Your task to perform on an android device: Search for the best 4k TVs Image 0: 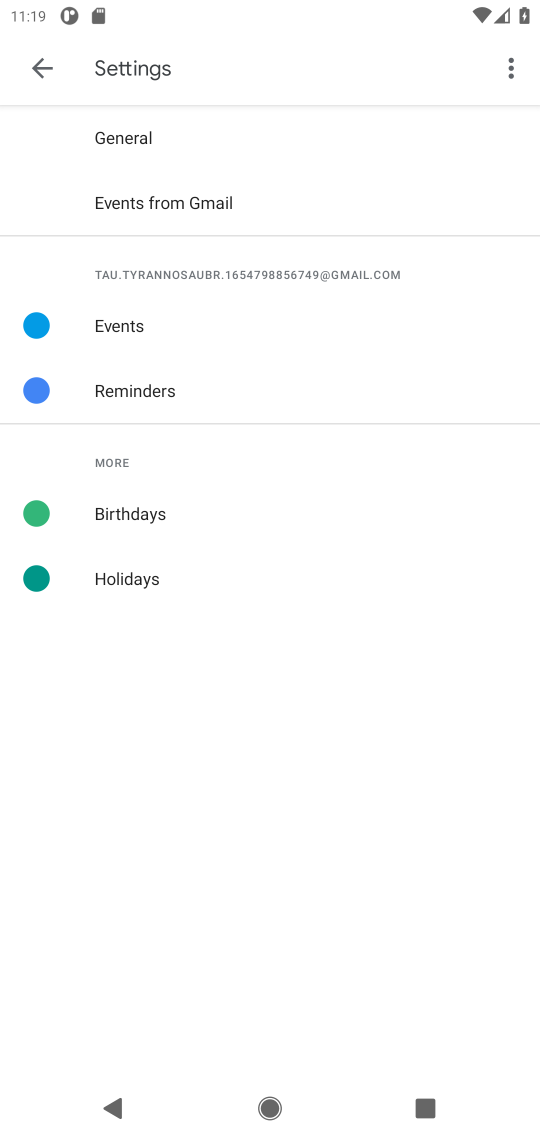
Step 0: press home button
Your task to perform on an android device: Search for the best 4k TVs Image 1: 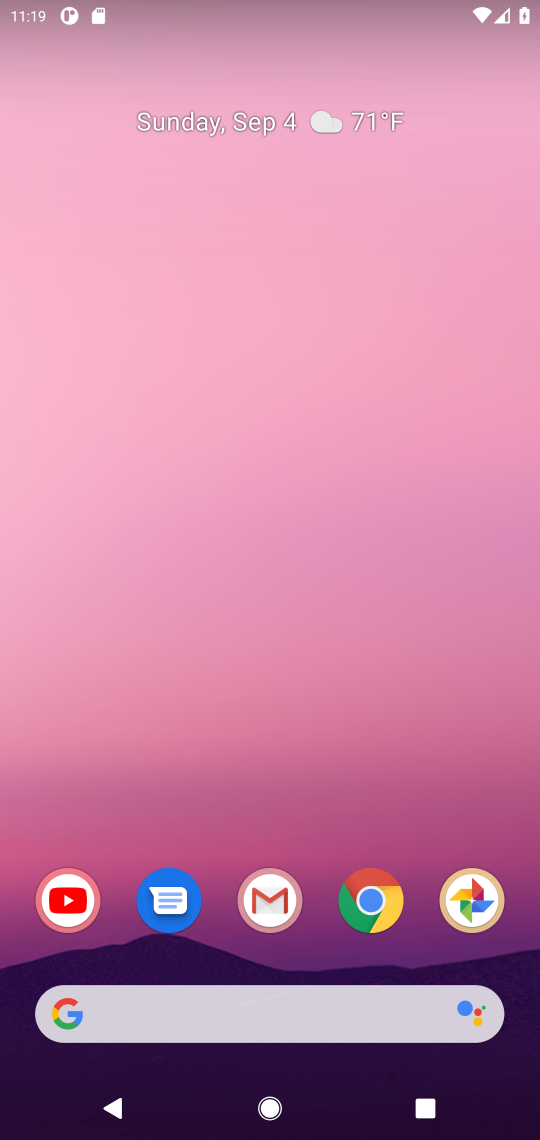
Step 1: click (378, 908)
Your task to perform on an android device: Search for the best 4k TVs Image 2: 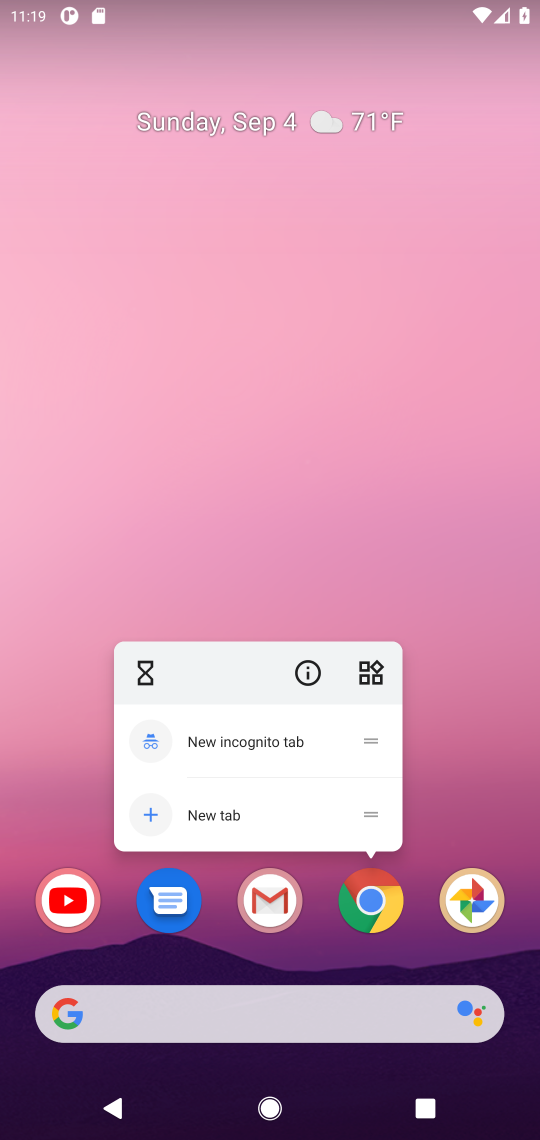
Step 2: click (378, 909)
Your task to perform on an android device: Search for the best 4k TVs Image 3: 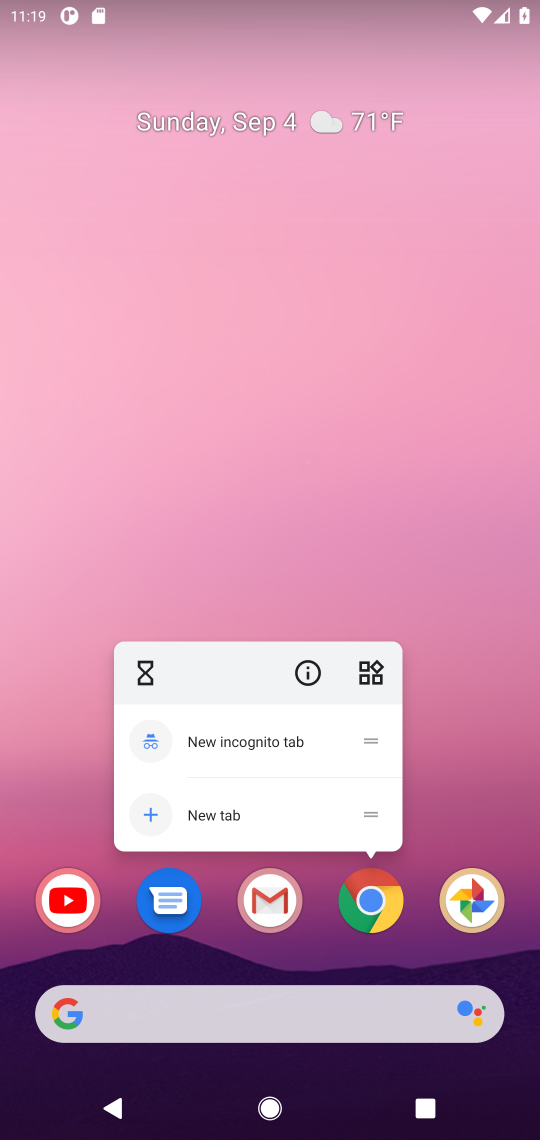
Step 3: click (375, 908)
Your task to perform on an android device: Search for the best 4k TVs Image 4: 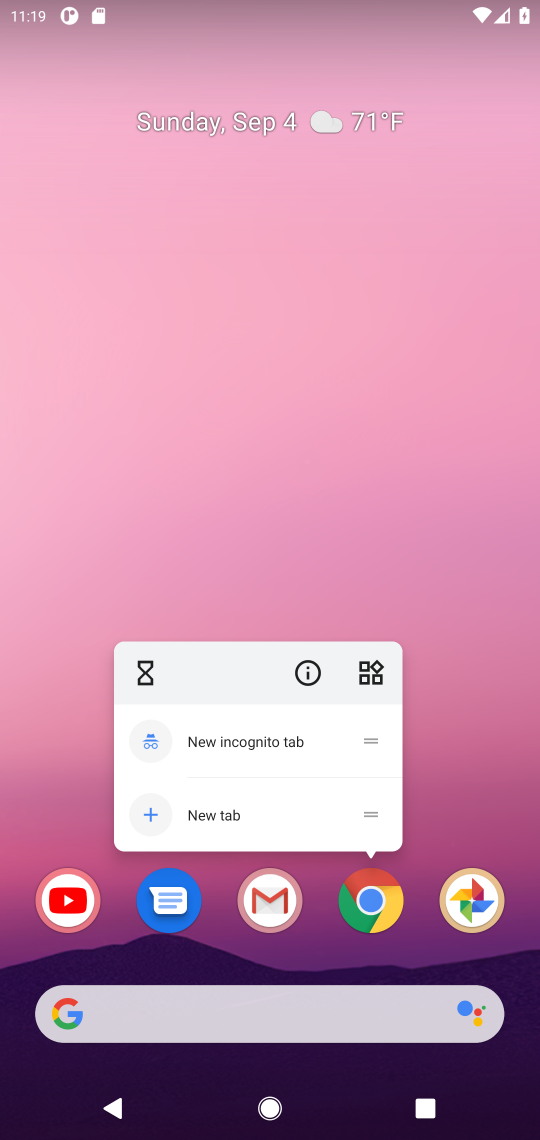
Step 4: click (375, 908)
Your task to perform on an android device: Search for the best 4k TVs Image 5: 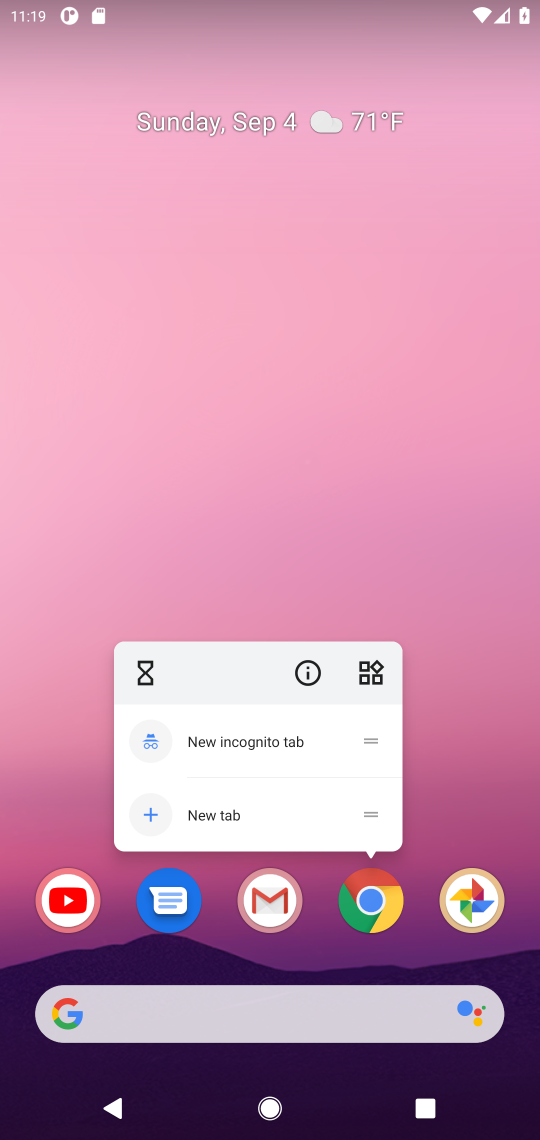
Step 5: click (375, 908)
Your task to perform on an android device: Search for the best 4k TVs Image 6: 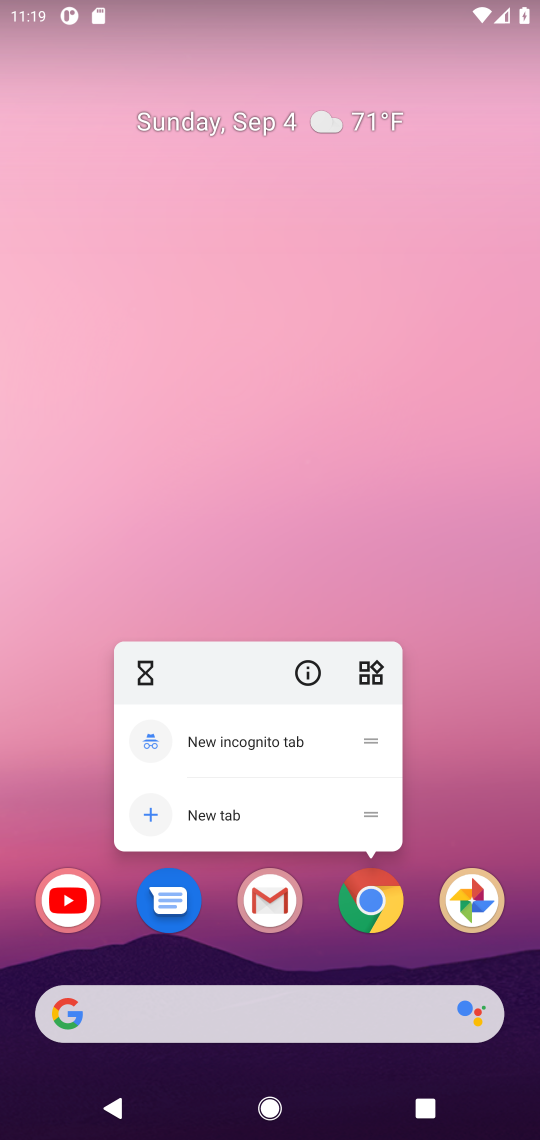
Step 6: click (374, 894)
Your task to perform on an android device: Search for the best 4k TVs Image 7: 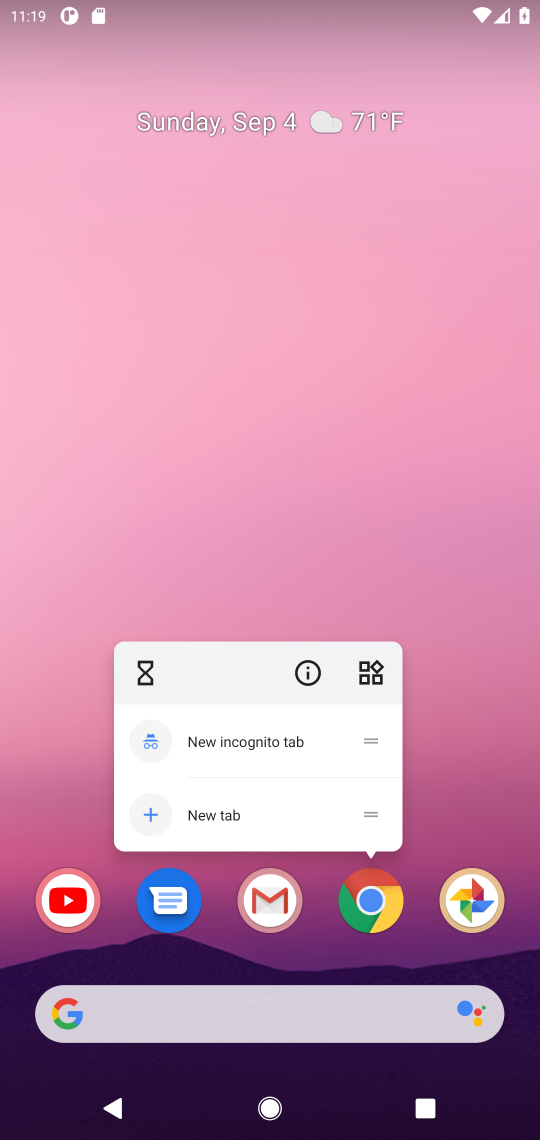
Step 7: click (366, 904)
Your task to perform on an android device: Search for the best 4k TVs Image 8: 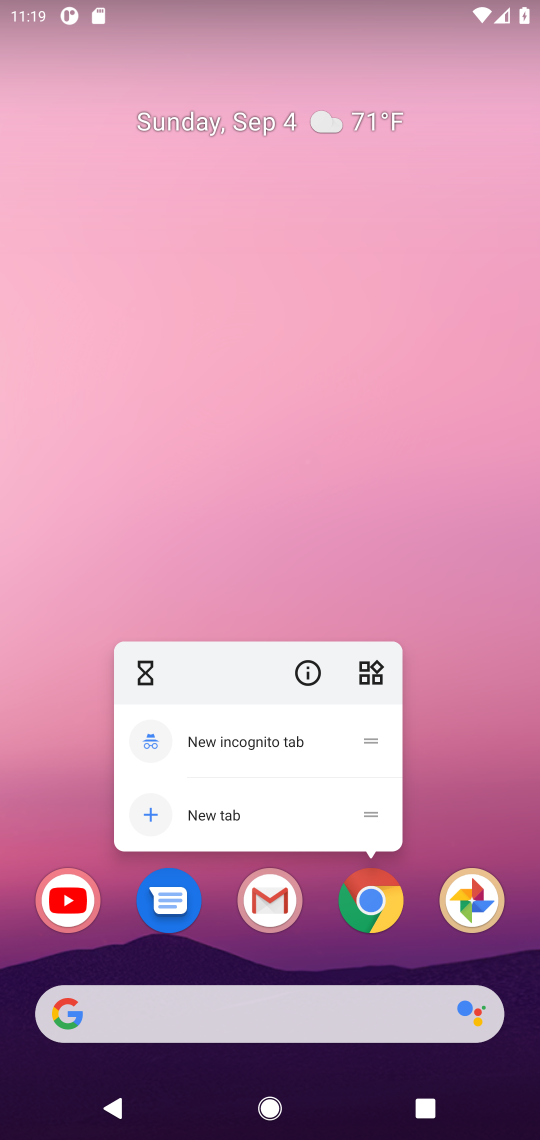
Step 8: click (372, 925)
Your task to perform on an android device: Search for the best 4k TVs Image 9: 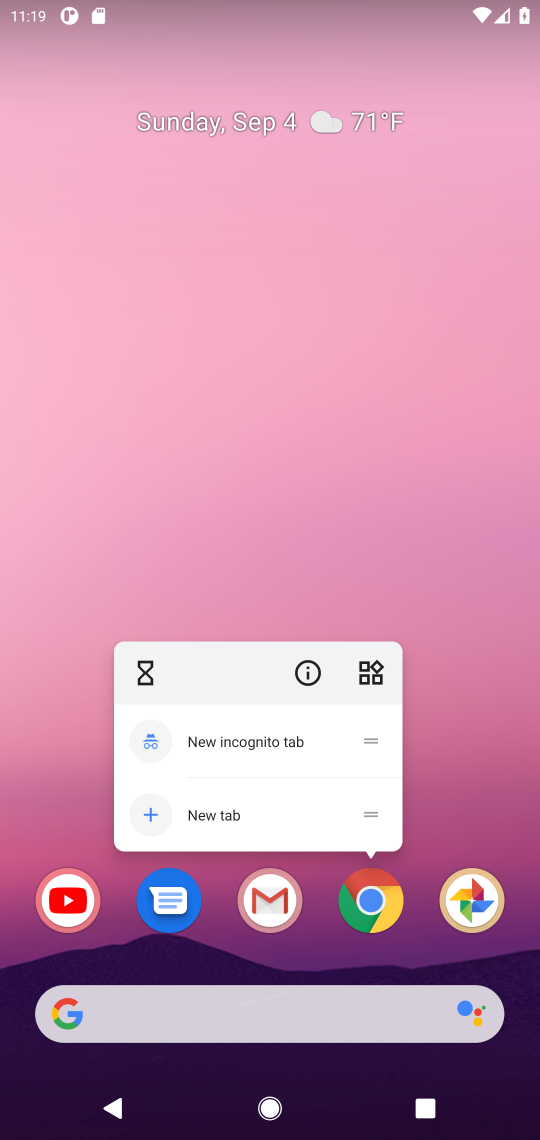
Step 9: click (458, 427)
Your task to perform on an android device: Search for the best 4k TVs Image 10: 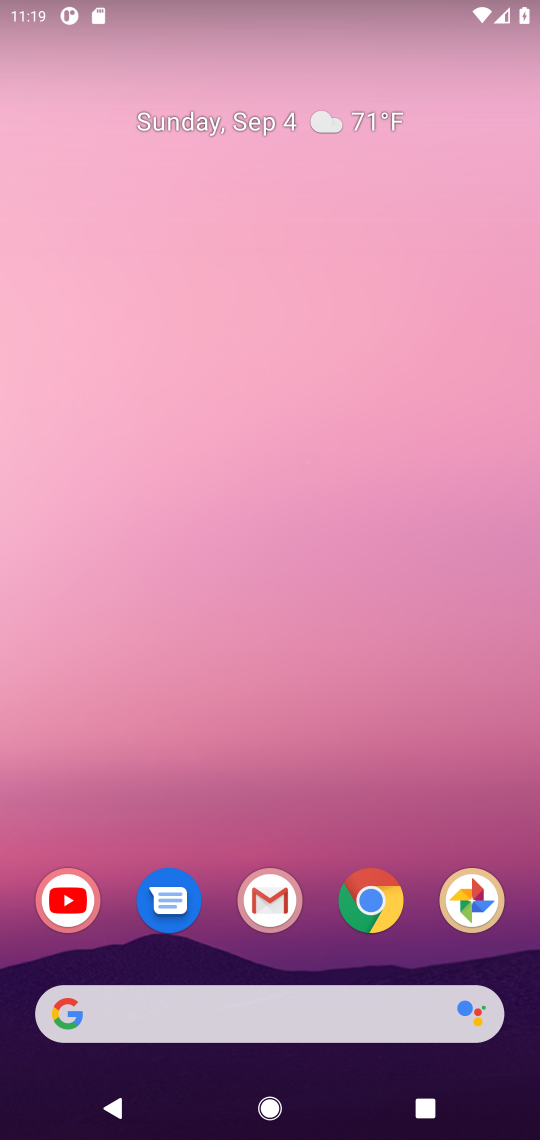
Step 10: click (370, 900)
Your task to perform on an android device: Search for the best 4k TVs Image 11: 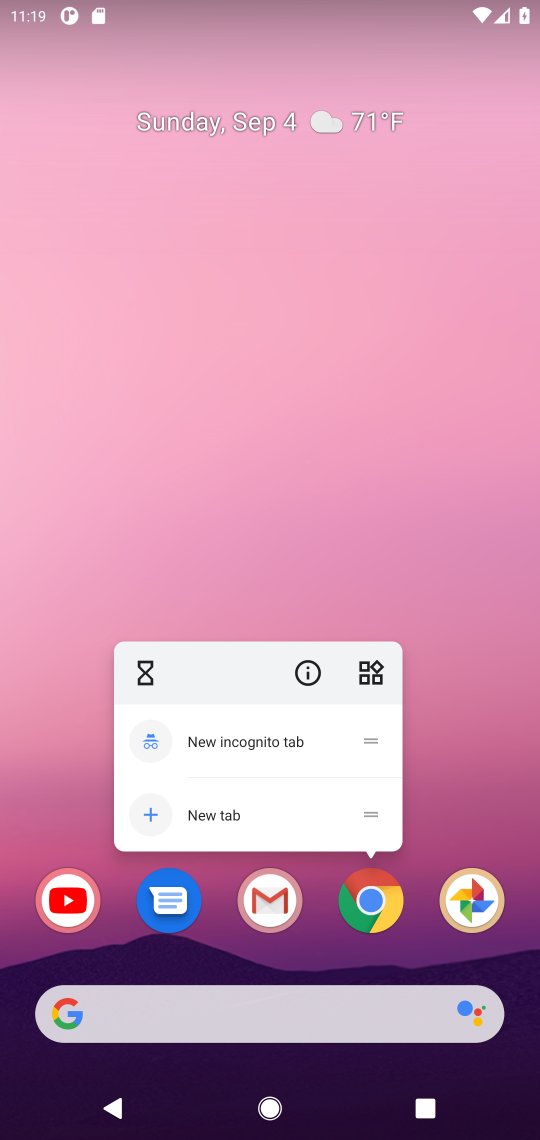
Step 11: click (370, 900)
Your task to perform on an android device: Search for the best 4k TVs Image 12: 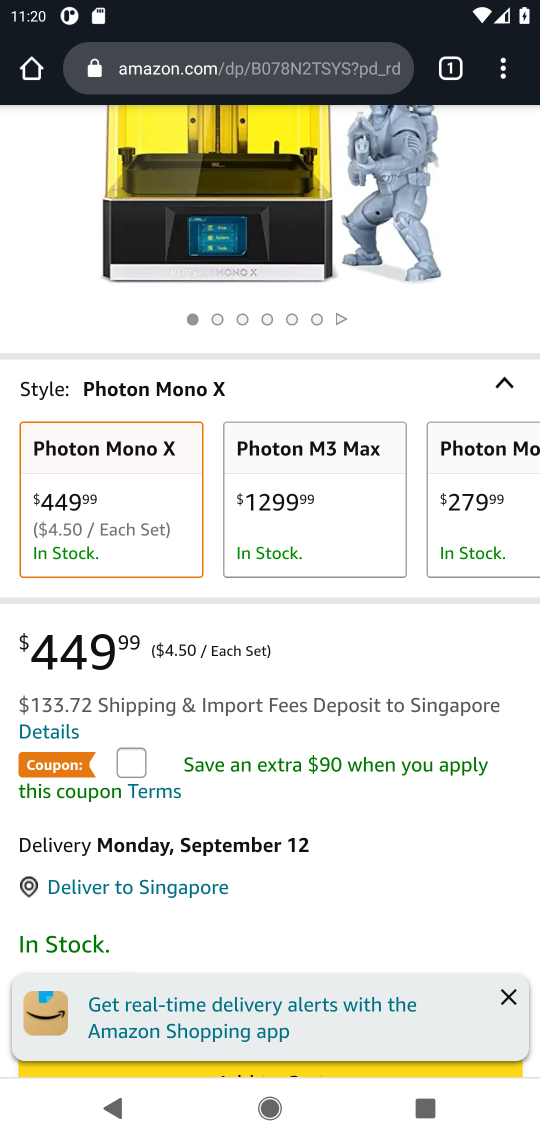
Step 12: click (297, 78)
Your task to perform on an android device: Search for the best 4k TVs Image 13: 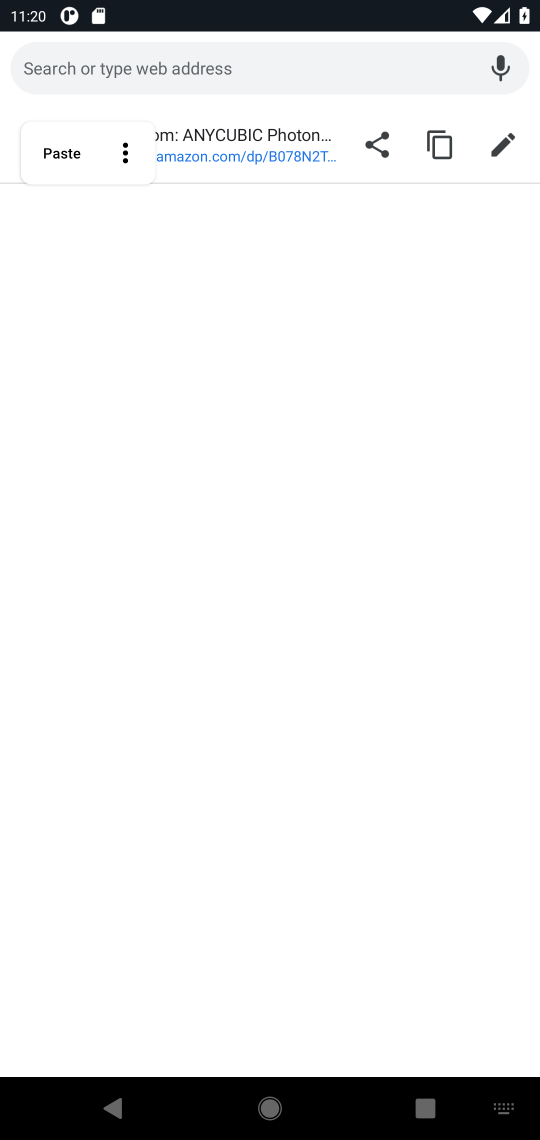
Step 13: press enter
Your task to perform on an android device: Search for the best 4k TVs Image 14: 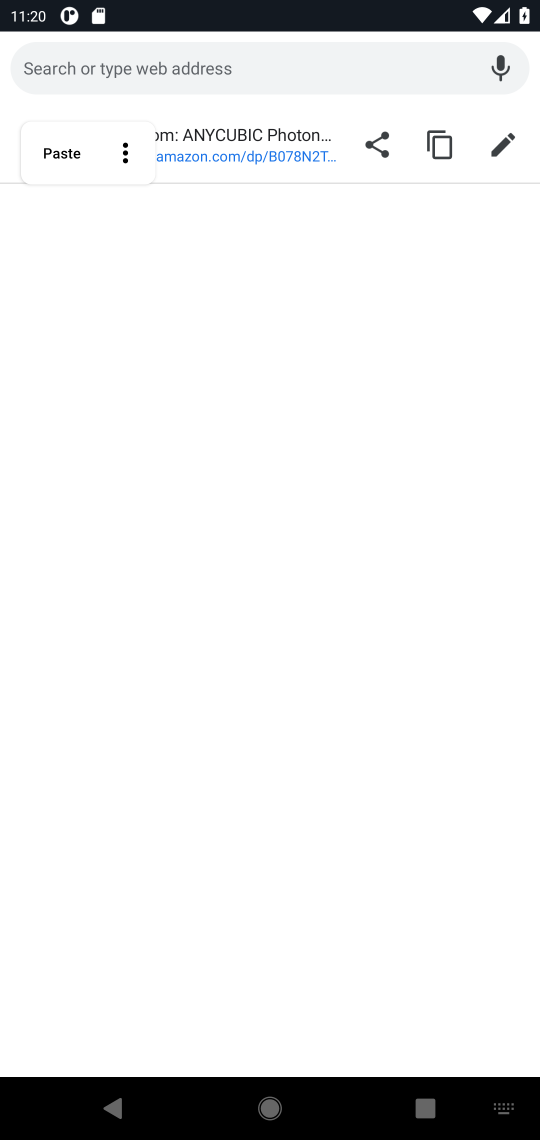
Step 14: type " best 4k TVs"
Your task to perform on an android device: Search for the best 4k TVs Image 15: 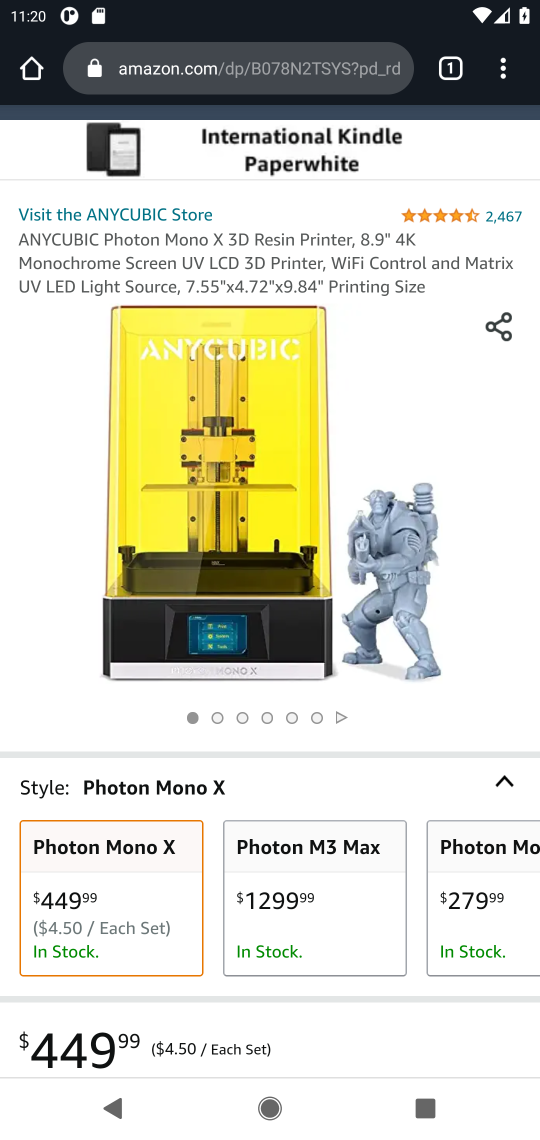
Step 15: click (325, 64)
Your task to perform on an android device: Search for the best 4k TVs Image 16: 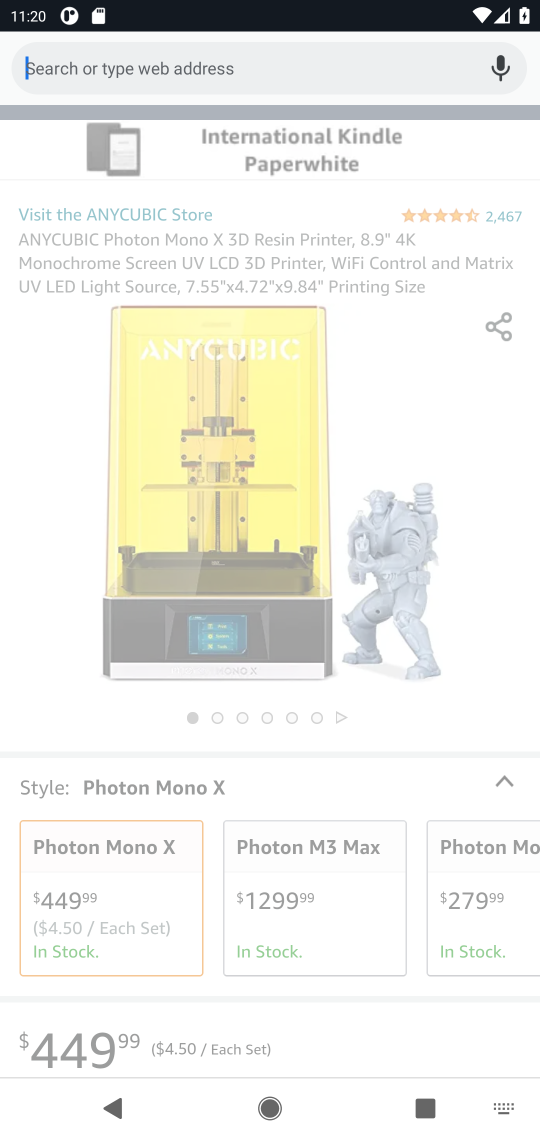
Step 16: click (135, 64)
Your task to perform on an android device: Search for the best 4k TVs Image 17: 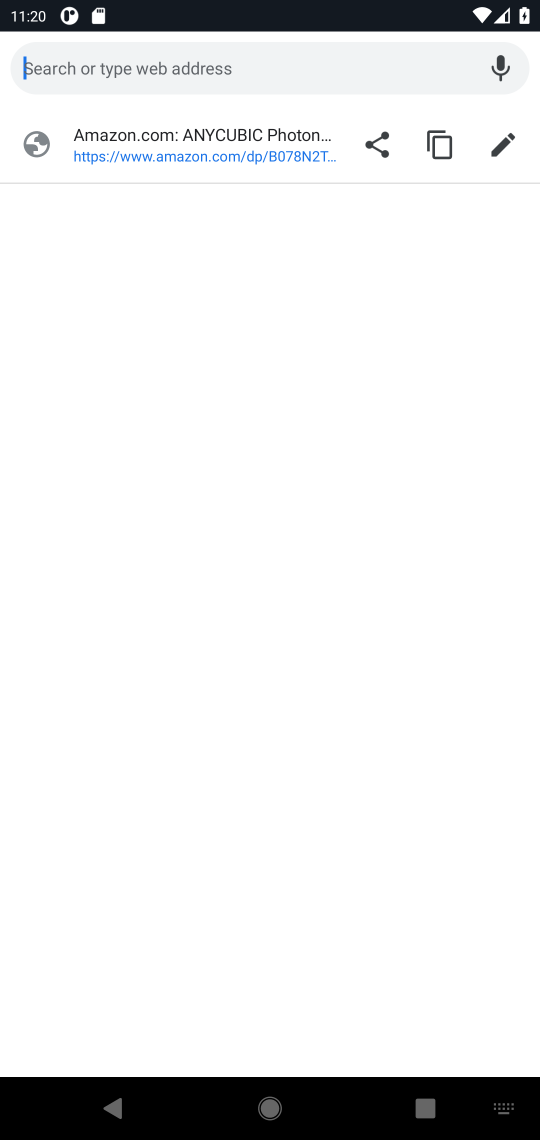
Step 17: click (204, 64)
Your task to perform on an android device: Search for the best 4k TVs Image 18: 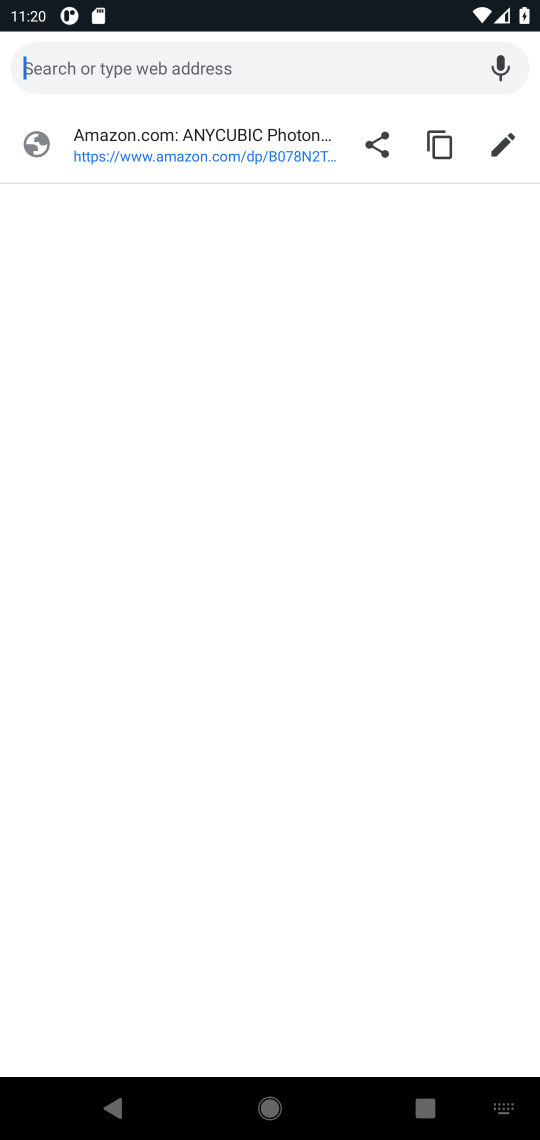
Step 18: press enter
Your task to perform on an android device: Search for the best 4k TVs Image 19: 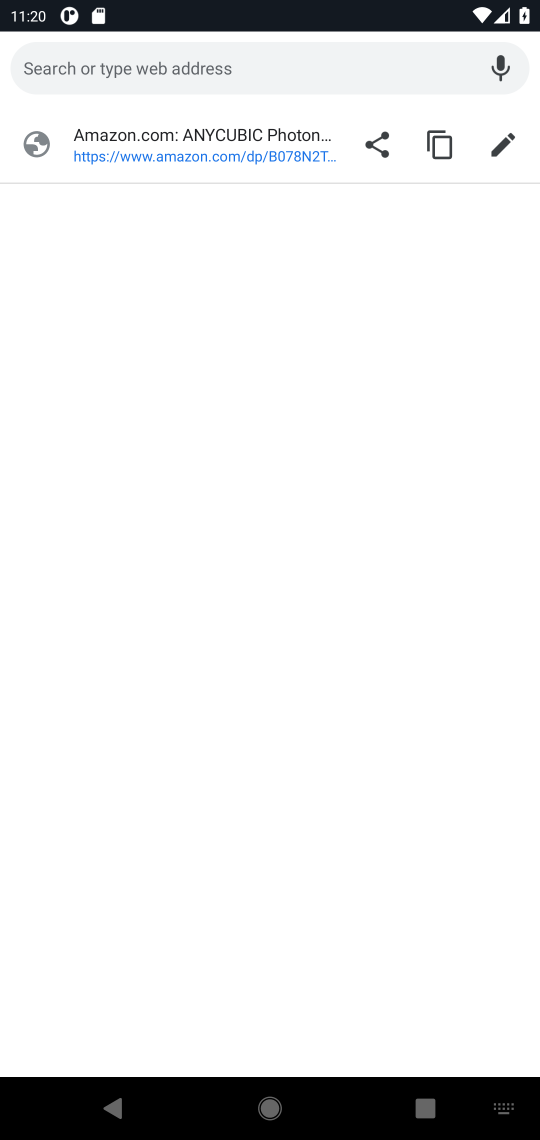
Step 19: type " best 4k TVs"
Your task to perform on an android device: Search for the best 4k TVs Image 20: 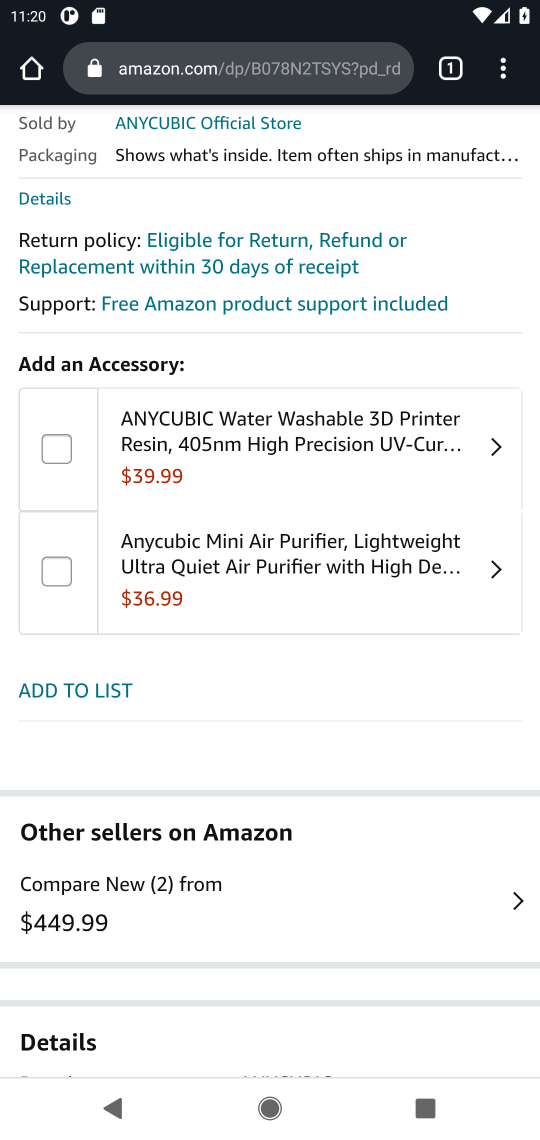
Step 20: press back button
Your task to perform on an android device: Search for the best 4k TVs Image 21: 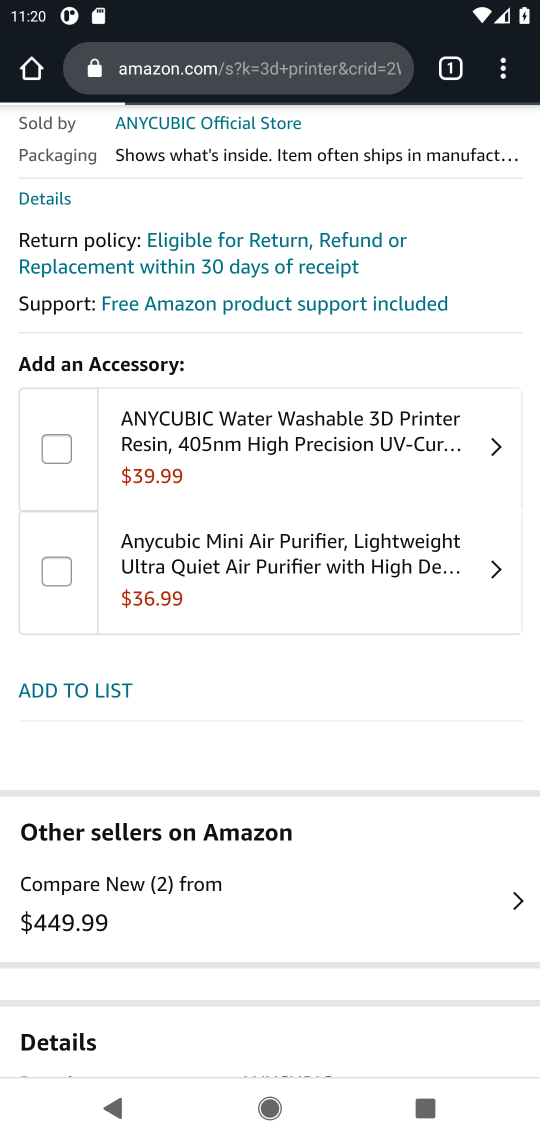
Step 21: press back button
Your task to perform on an android device: Search for the best 4k TVs Image 22: 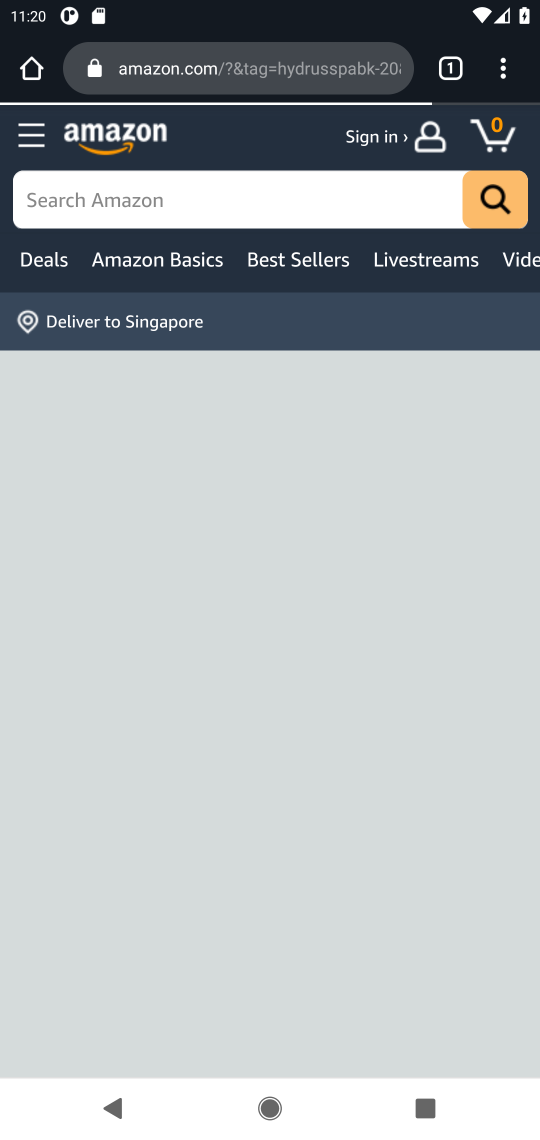
Step 22: press back button
Your task to perform on an android device: Search for the best 4k TVs Image 23: 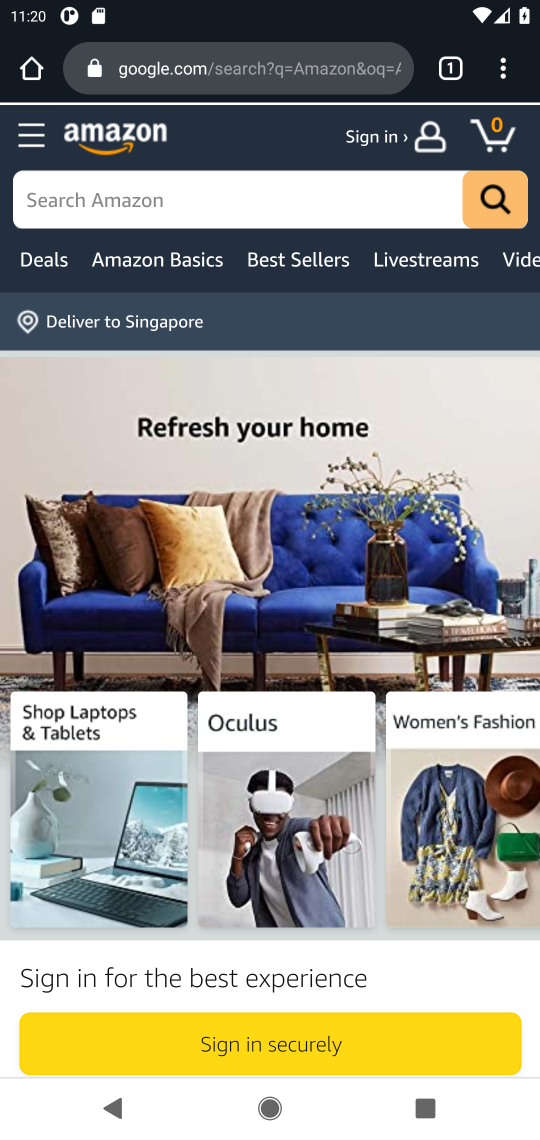
Step 23: click (293, 66)
Your task to perform on an android device: Search for the best 4k TVs Image 24: 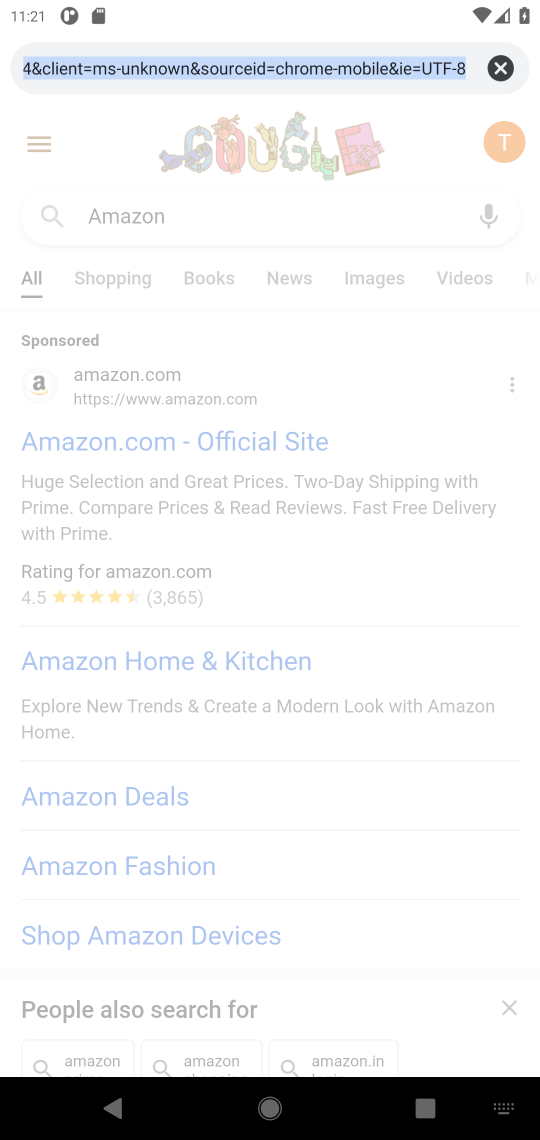
Step 24: click (502, 59)
Your task to perform on an android device: Search for the best 4k TVs Image 25: 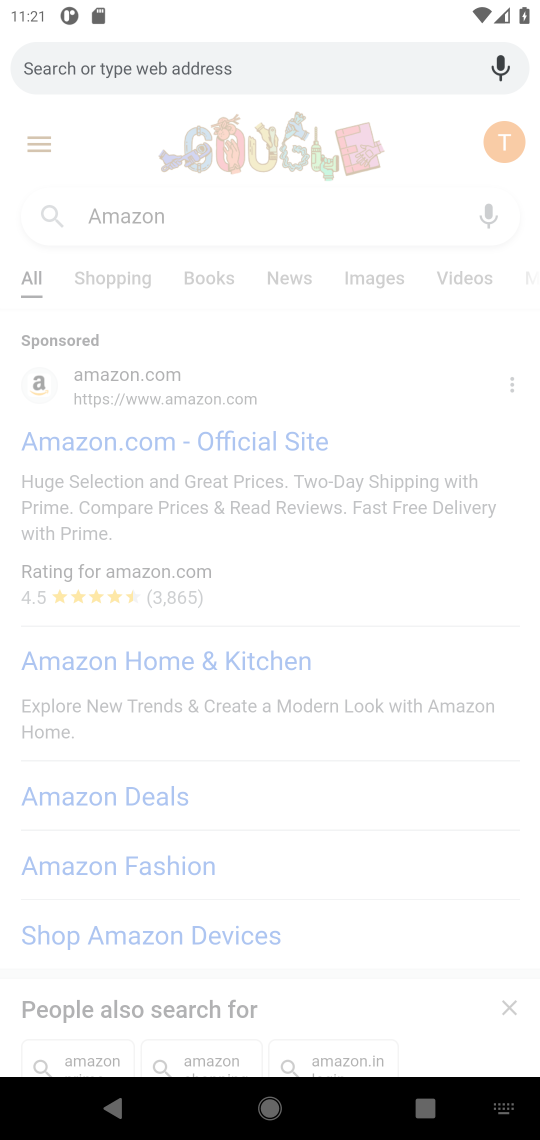
Step 25: type "best 4k TVs"
Your task to perform on an android device: Search for the best 4k TVs Image 26: 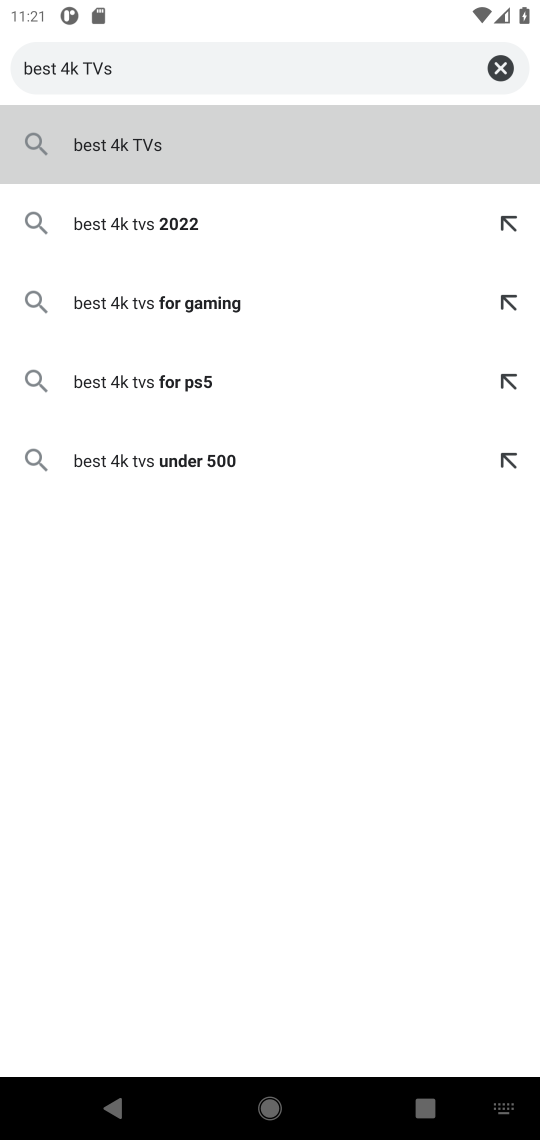
Step 26: press enter
Your task to perform on an android device: Search for the best 4k TVs Image 27: 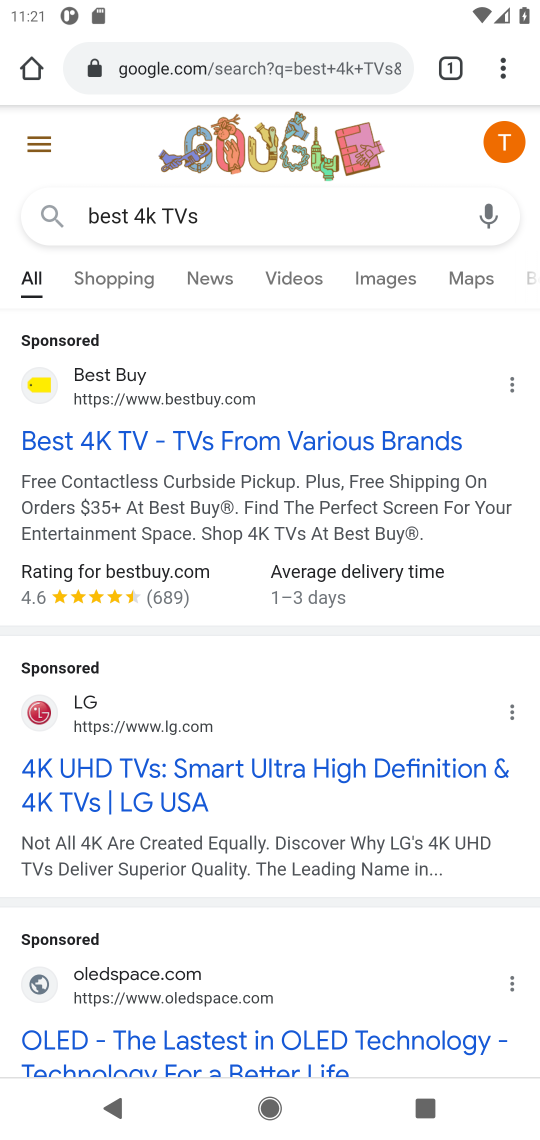
Step 27: drag from (377, 611) to (481, 398)
Your task to perform on an android device: Search for the best 4k TVs Image 28: 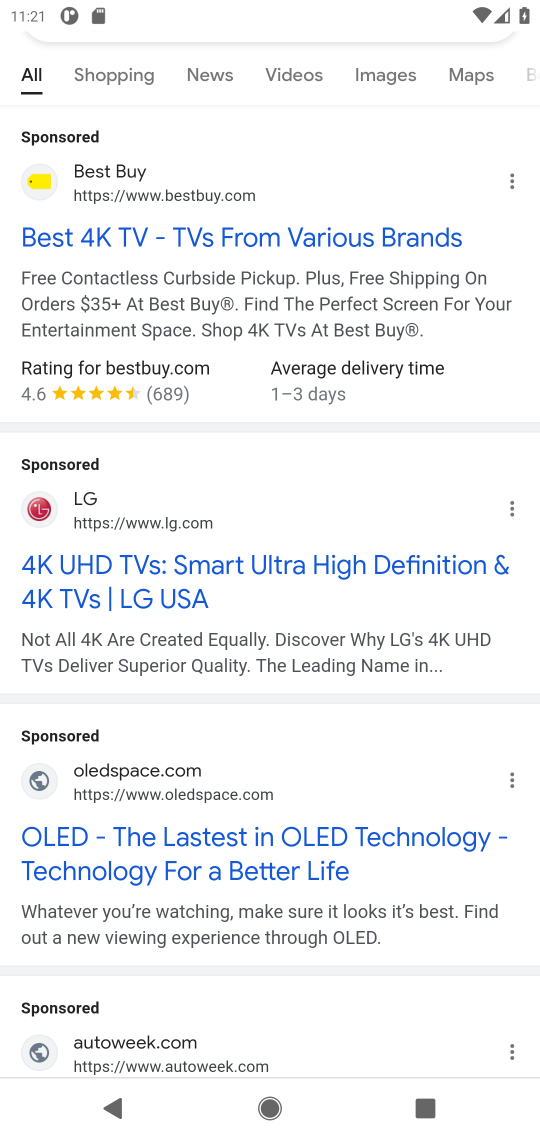
Step 28: drag from (397, 476) to (482, 226)
Your task to perform on an android device: Search for the best 4k TVs Image 29: 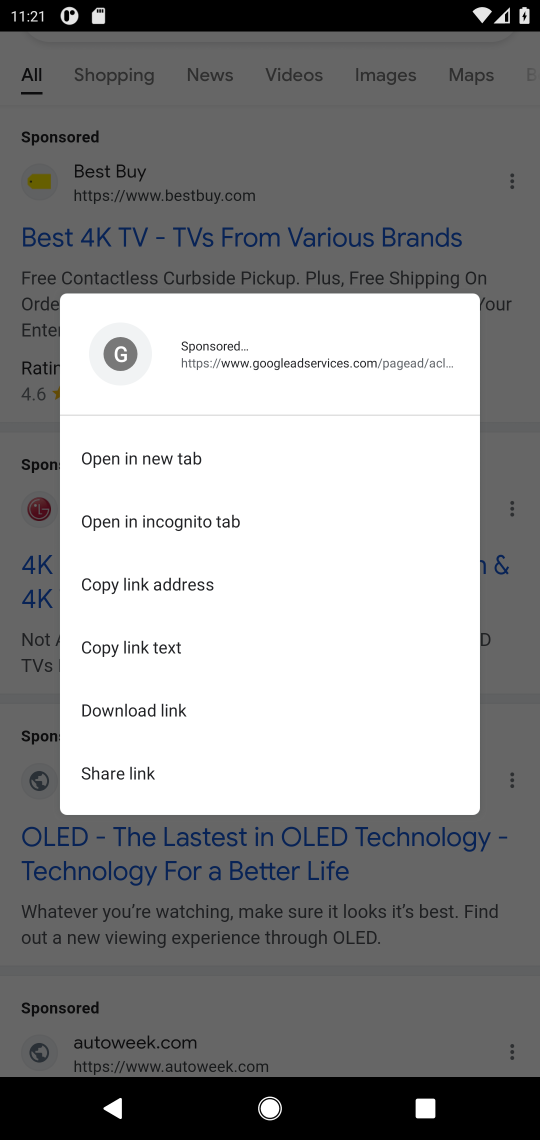
Step 29: click (471, 929)
Your task to perform on an android device: Search for the best 4k TVs Image 30: 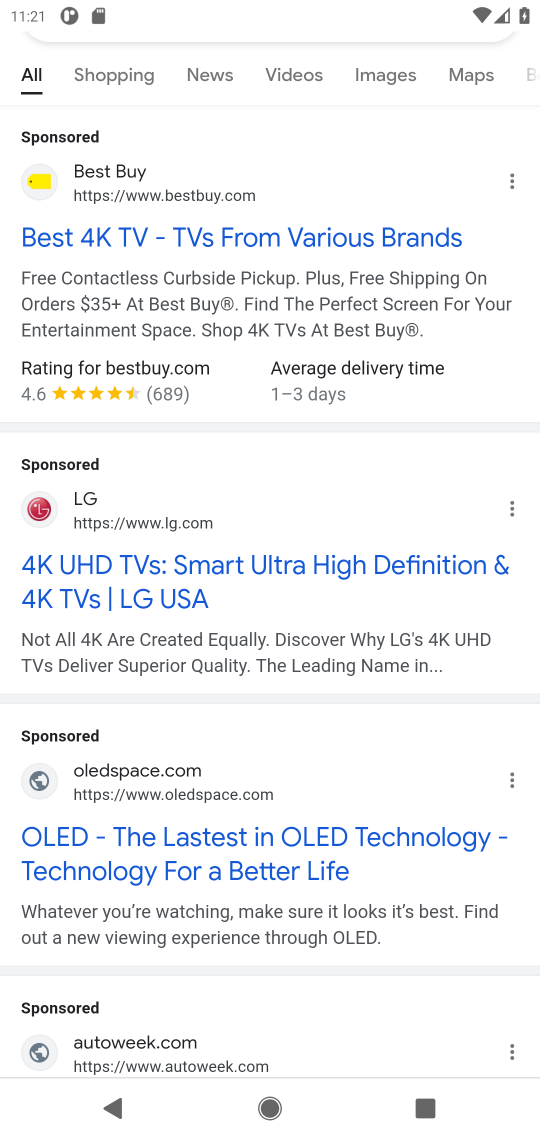
Step 30: drag from (151, 914) to (475, 221)
Your task to perform on an android device: Search for the best 4k TVs Image 31: 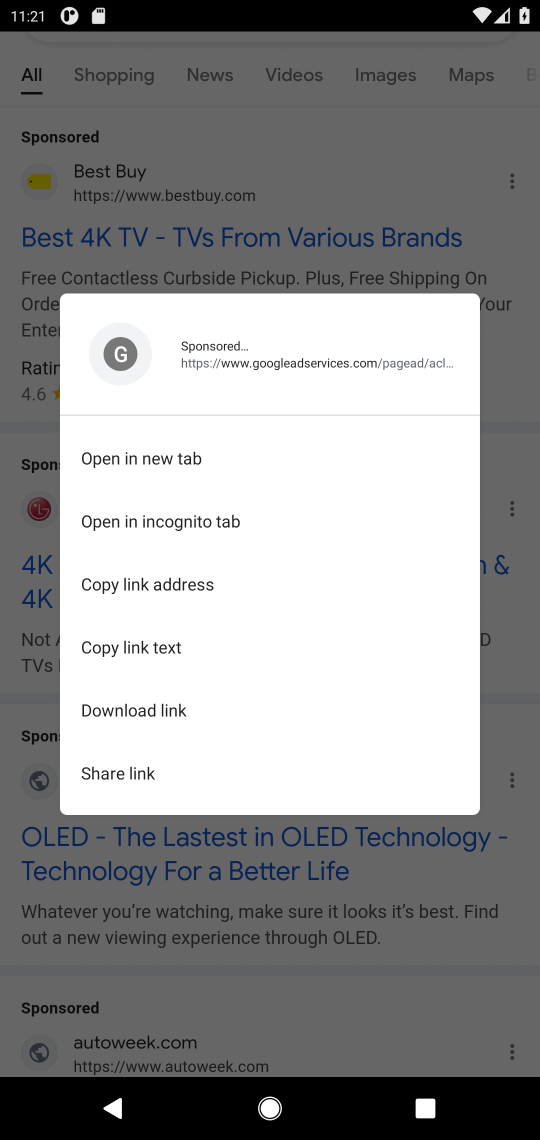
Step 31: click (503, 387)
Your task to perform on an android device: Search for the best 4k TVs Image 32: 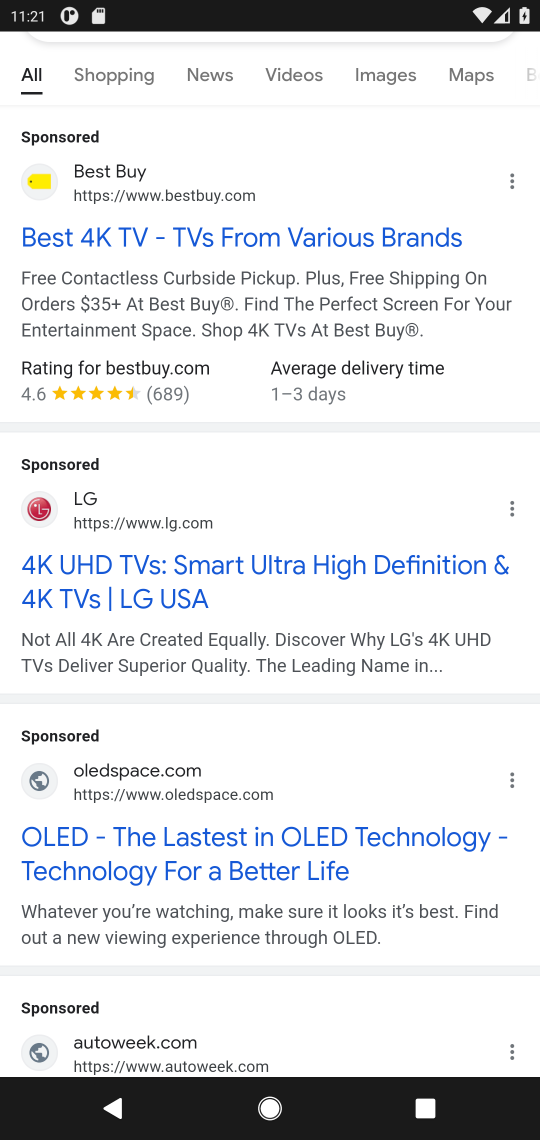
Step 32: task complete